Your task to perform on an android device: Open Chrome and go to the settings page Image 0: 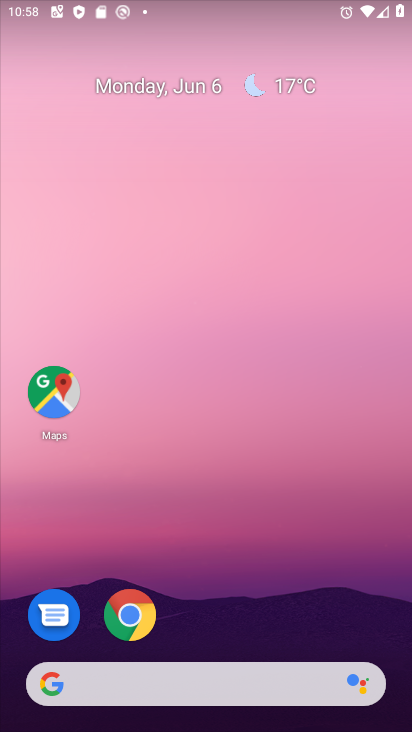
Step 0: click (133, 608)
Your task to perform on an android device: Open Chrome and go to the settings page Image 1: 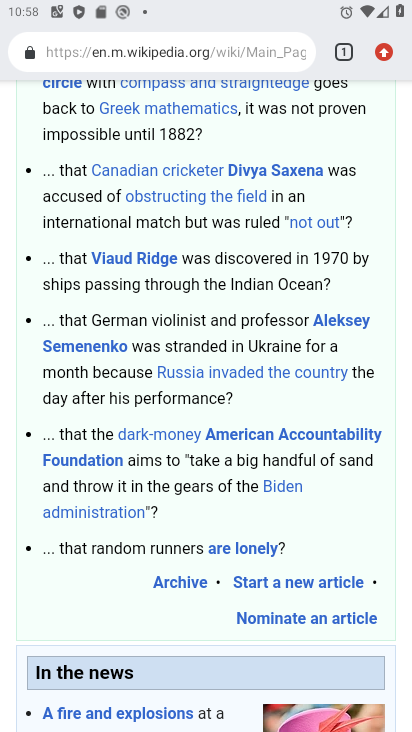
Step 1: click (389, 46)
Your task to perform on an android device: Open Chrome and go to the settings page Image 2: 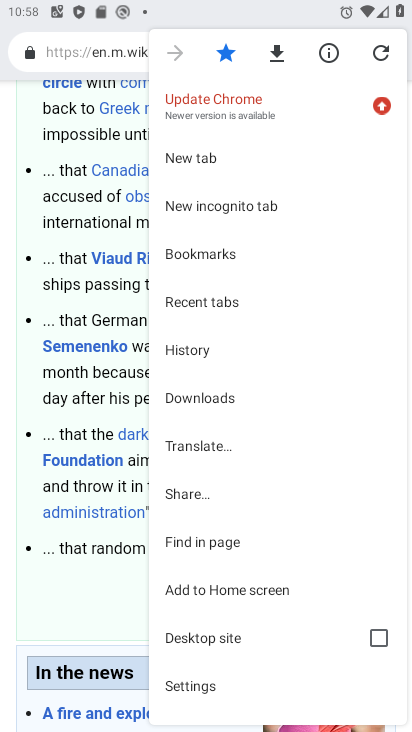
Step 2: click (226, 688)
Your task to perform on an android device: Open Chrome and go to the settings page Image 3: 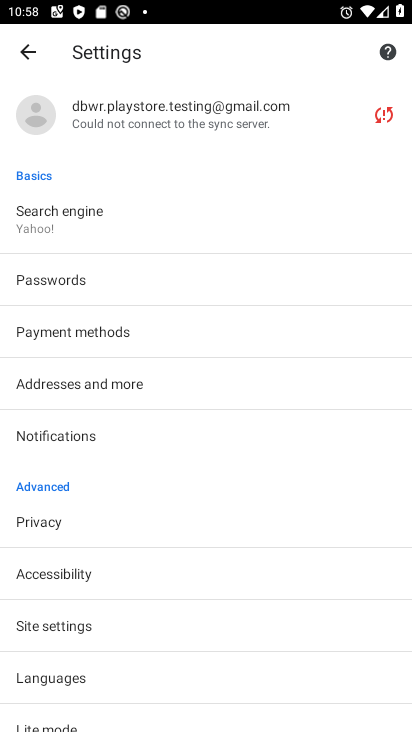
Step 3: task complete